Your task to perform on an android device: move a message to another label in the gmail app Image 0: 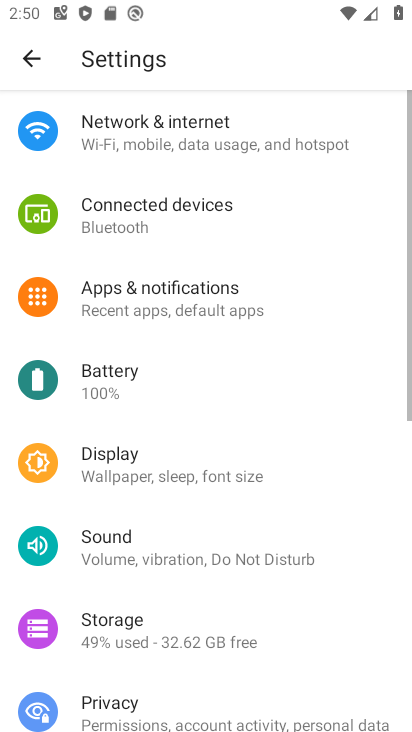
Step 0: press home button
Your task to perform on an android device: move a message to another label in the gmail app Image 1: 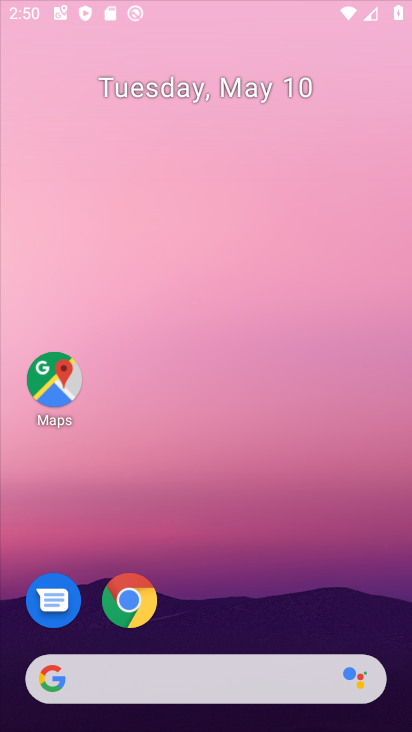
Step 1: drag from (209, 463) to (196, 88)
Your task to perform on an android device: move a message to another label in the gmail app Image 2: 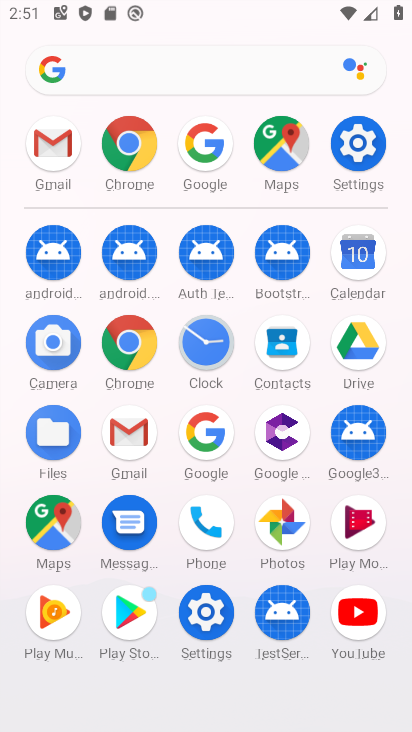
Step 2: click (135, 451)
Your task to perform on an android device: move a message to another label in the gmail app Image 3: 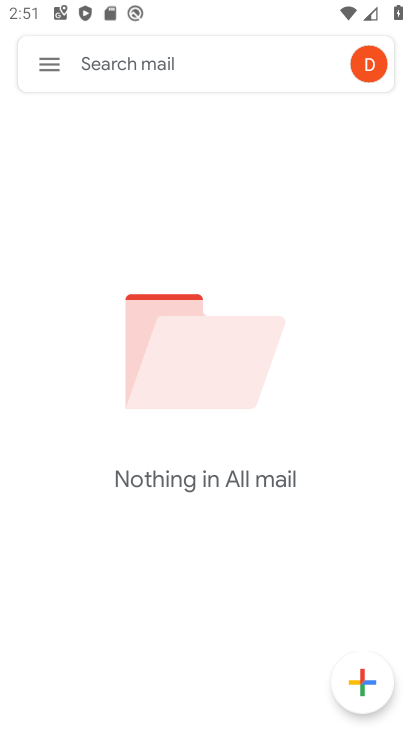
Step 3: click (50, 71)
Your task to perform on an android device: move a message to another label in the gmail app Image 4: 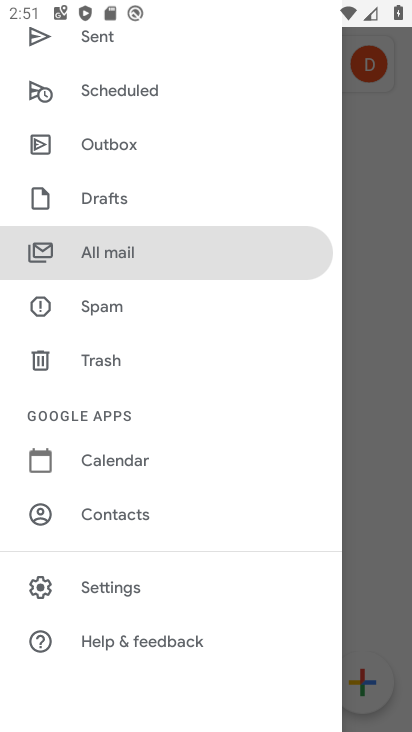
Step 4: task complete